Your task to perform on an android device: open a bookmark in the chrome app Image 0: 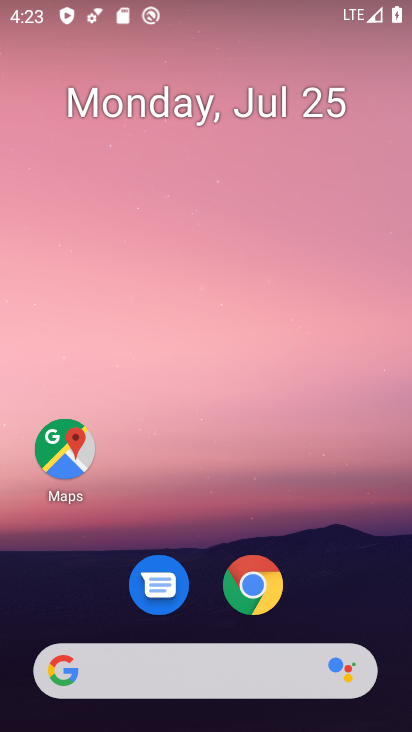
Step 0: click (256, 588)
Your task to perform on an android device: open a bookmark in the chrome app Image 1: 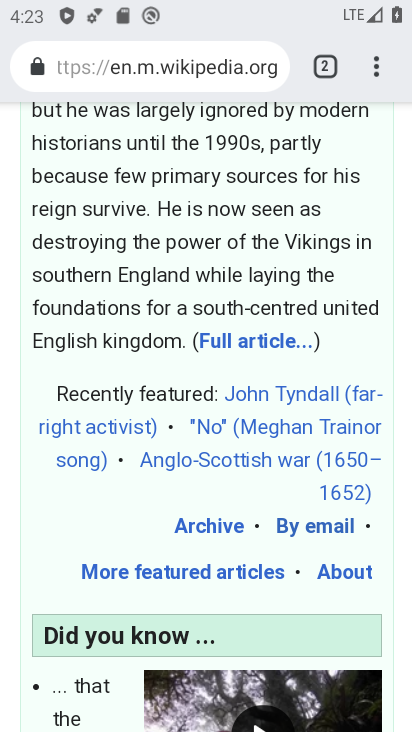
Step 1: press back button
Your task to perform on an android device: open a bookmark in the chrome app Image 2: 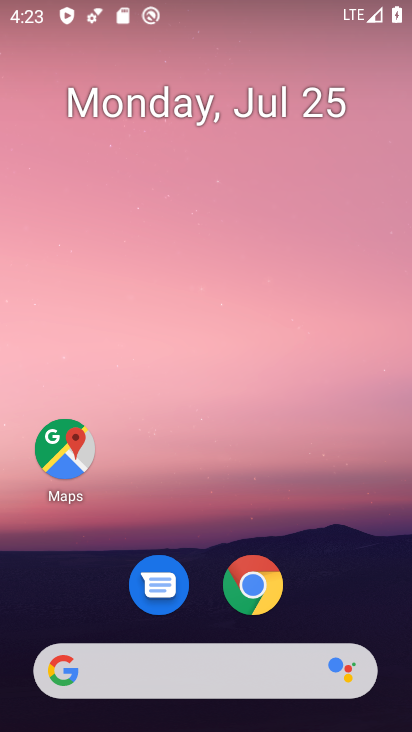
Step 2: click (266, 579)
Your task to perform on an android device: open a bookmark in the chrome app Image 3: 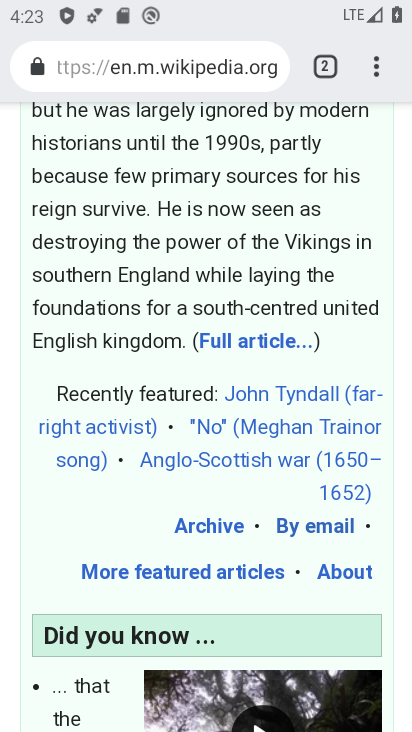
Step 3: click (275, 280)
Your task to perform on an android device: open a bookmark in the chrome app Image 4: 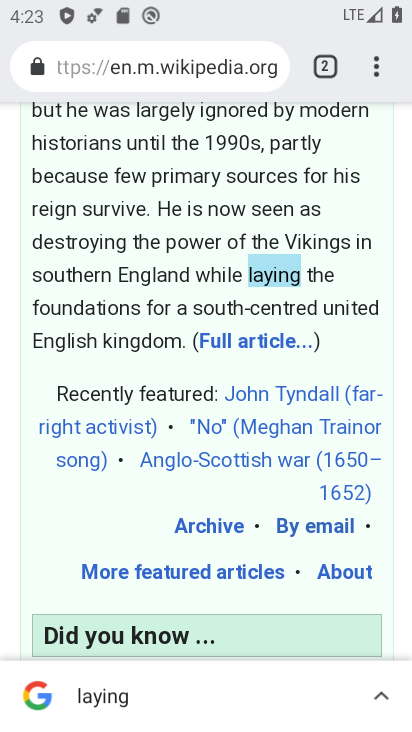
Step 4: press back button
Your task to perform on an android device: open a bookmark in the chrome app Image 5: 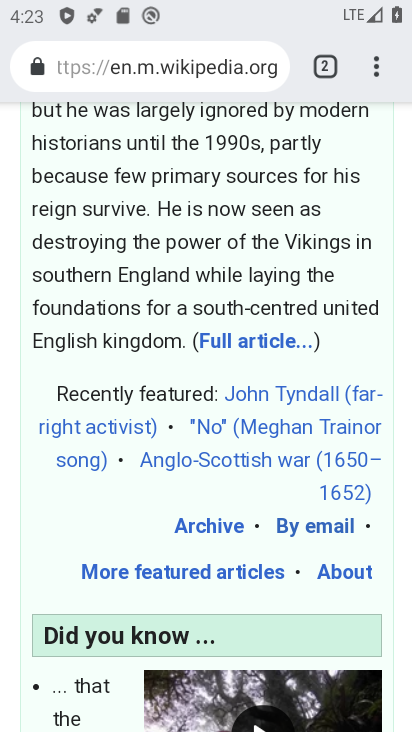
Step 5: press back button
Your task to perform on an android device: open a bookmark in the chrome app Image 6: 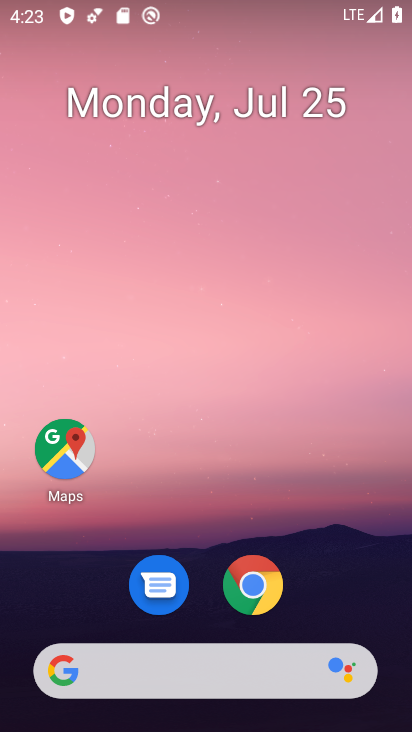
Step 6: click (264, 575)
Your task to perform on an android device: open a bookmark in the chrome app Image 7: 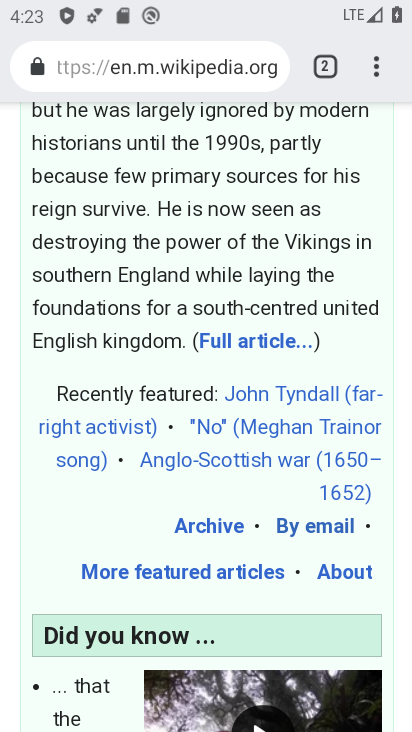
Step 7: drag from (255, 196) to (242, 623)
Your task to perform on an android device: open a bookmark in the chrome app Image 8: 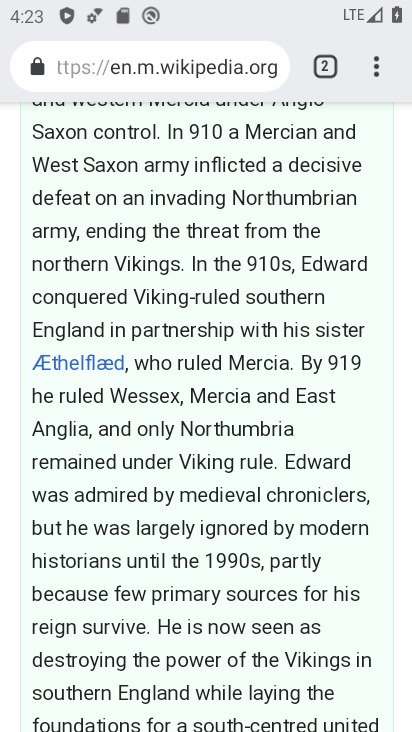
Step 8: drag from (249, 228) to (229, 634)
Your task to perform on an android device: open a bookmark in the chrome app Image 9: 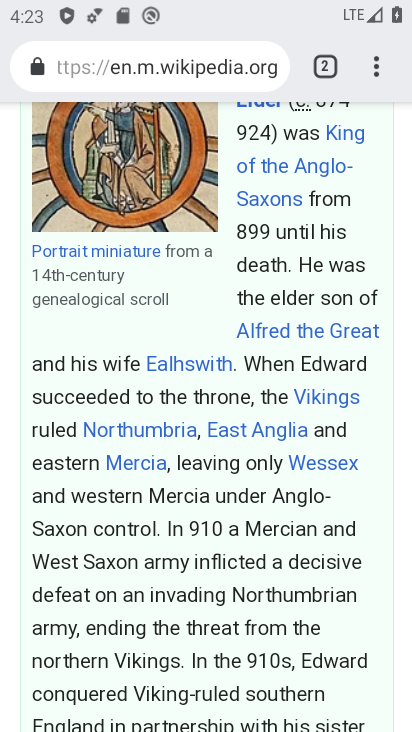
Step 9: drag from (210, 213) to (204, 715)
Your task to perform on an android device: open a bookmark in the chrome app Image 10: 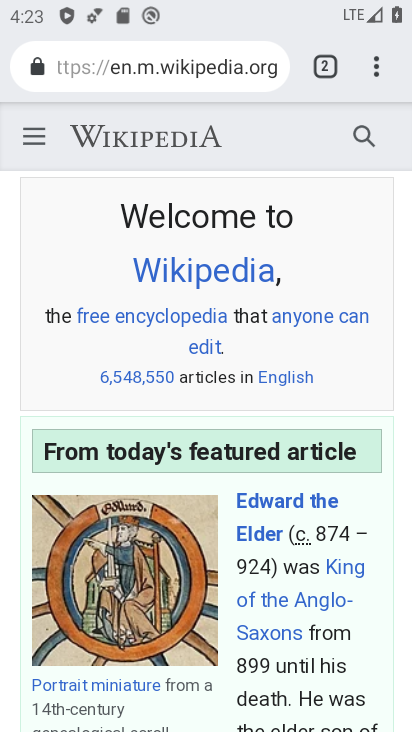
Step 10: click (378, 68)
Your task to perform on an android device: open a bookmark in the chrome app Image 11: 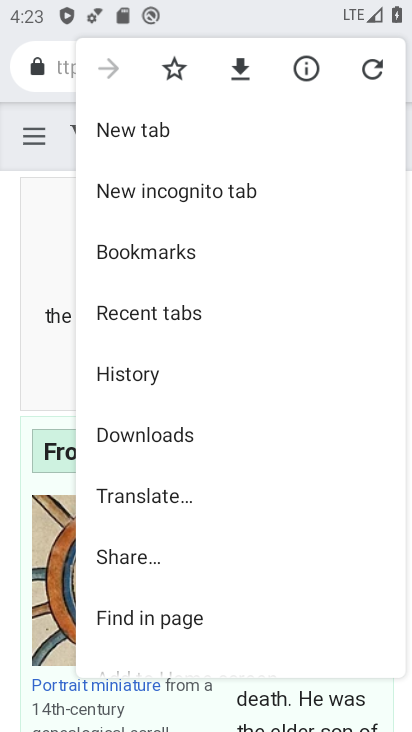
Step 11: click (188, 252)
Your task to perform on an android device: open a bookmark in the chrome app Image 12: 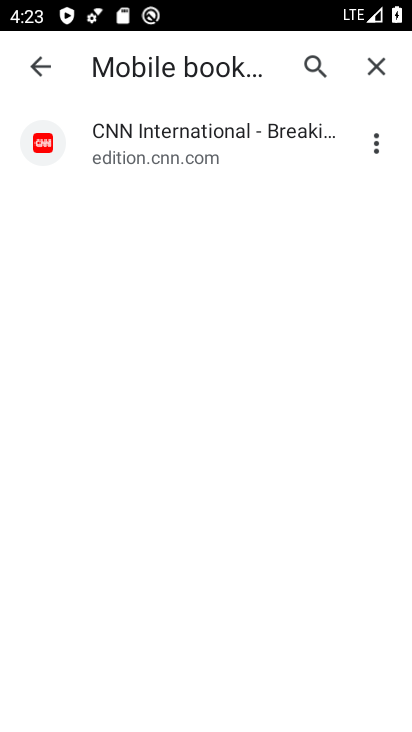
Step 12: click (199, 146)
Your task to perform on an android device: open a bookmark in the chrome app Image 13: 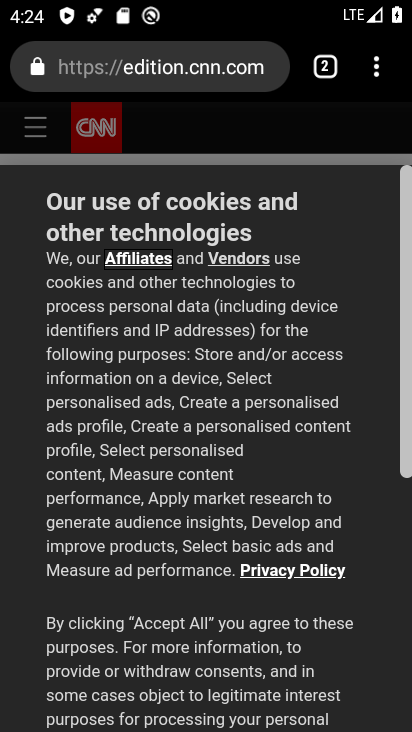
Step 13: drag from (251, 620) to (302, 76)
Your task to perform on an android device: open a bookmark in the chrome app Image 14: 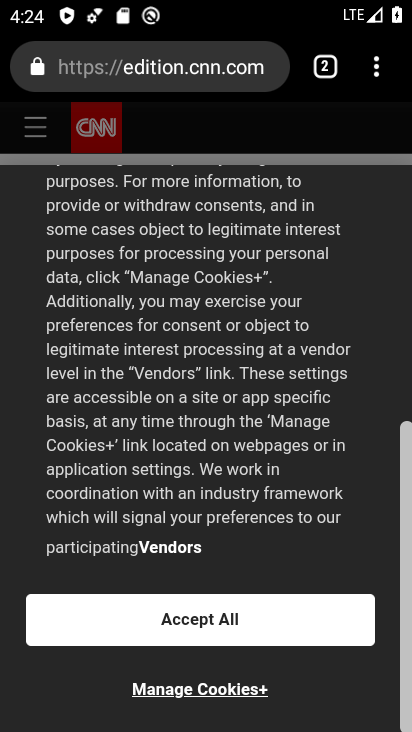
Step 14: click (305, 620)
Your task to perform on an android device: open a bookmark in the chrome app Image 15: 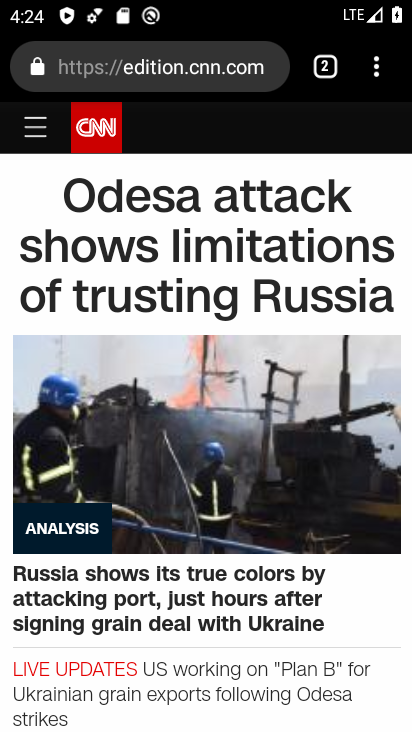
Step 15: task complete